Your task to perform on an android device: check out phone information Image 0: 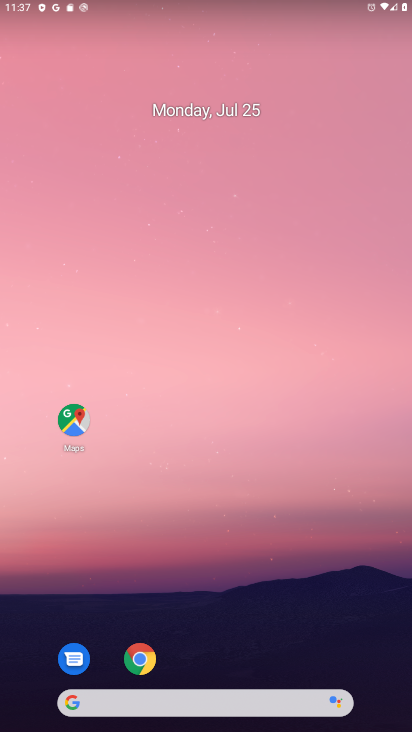
Step 0: drag from (251, 646) to (191, 217)
Your task to perform on an android device: check out phone information Image 1: 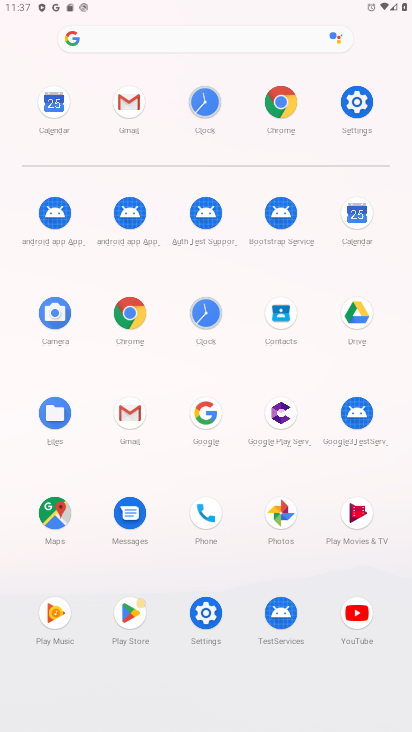
Step 1: click (200, 613)
Your task to perform on an android device: check out phone information Image 2: 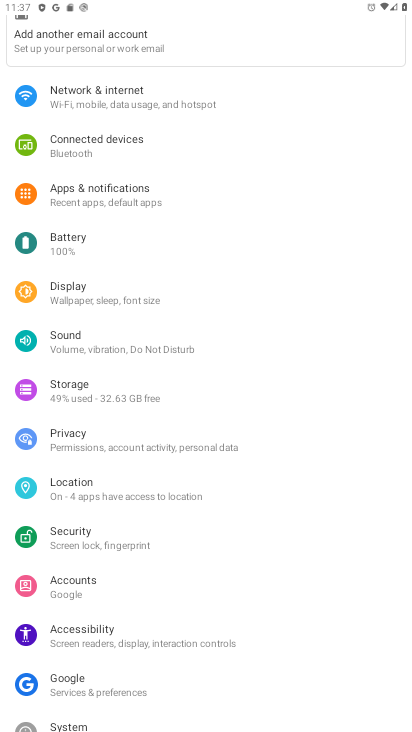
Step 2: drag from (245, 612) to (201, 168)
Your task to perform on an android device: check out phone information Image 3: 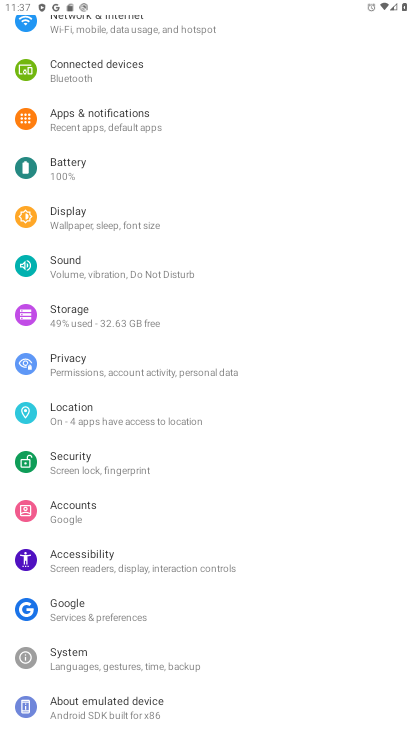
Step 3: click (107, 700)
Your task to perform on an android device: check out phone information Image 4: 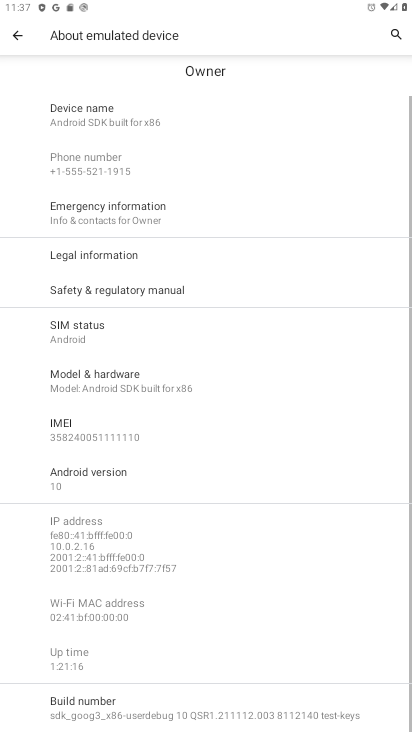
Step 4: task complete